Your task to perform on an android device: see creations saved in the google photos Image 0: 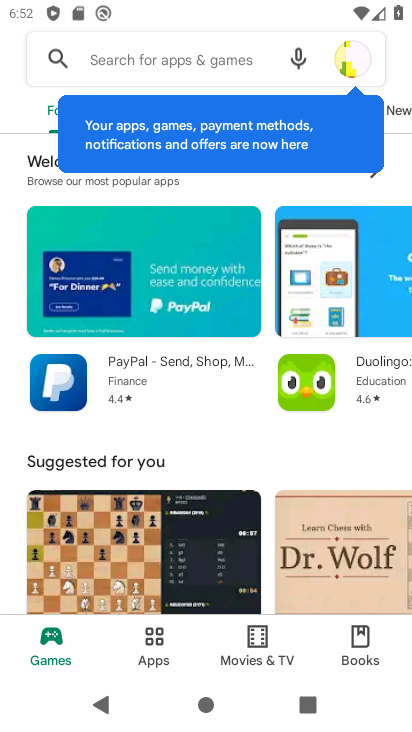
Step 0: press home button
Your task to perform on an android device: see creations saved in the google photos Image 1: 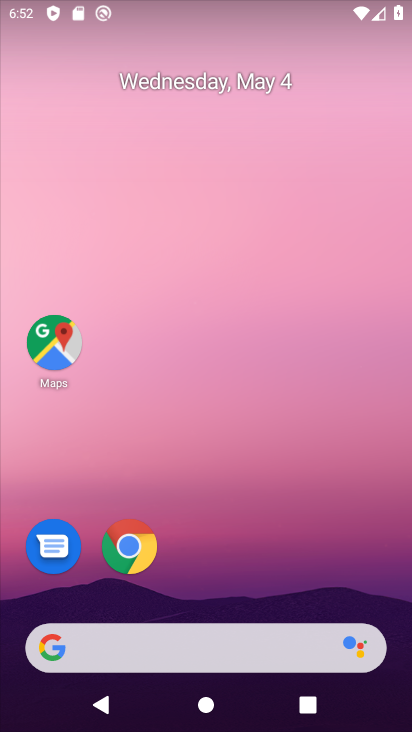
Step 1: drag from (291, 500) to (216, 0)
Your task to perform on an android device: see creations saved in the google photos Image 2: 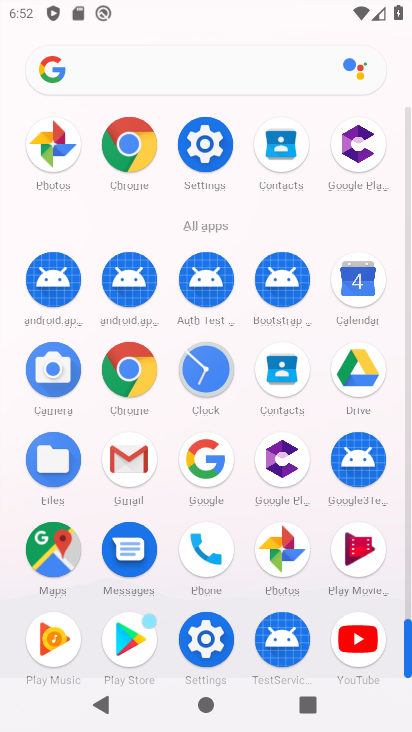
Step 2: click (51, 162)
Your task to perform on an android device: see creations saved in the google photos Image 3: 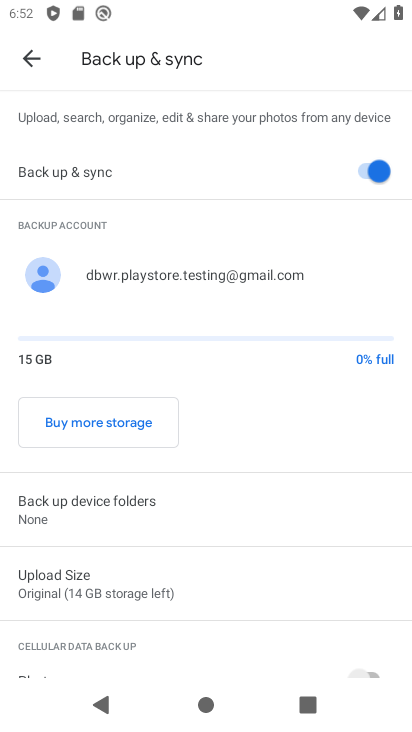
Step 3: drag from (245, 519) to (211, 214)
Your task to perform on an android device: see creations saved in the google photos Image 4: 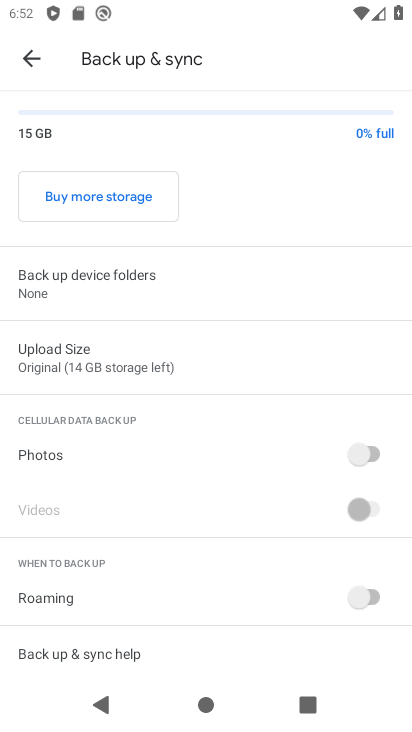
Step 4: click (40, 69)
Your task to perform on an android device: see creations saved in the google photos Image 5: 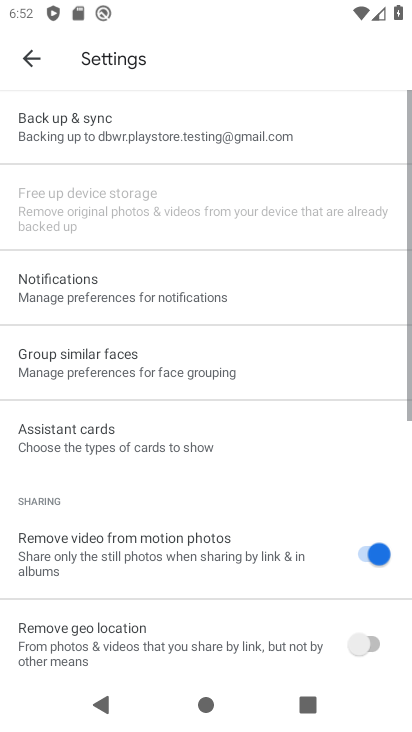
Step 5: click (40, 69)
Your task to perform on an android device: see creations saved in the google photos Image 6: 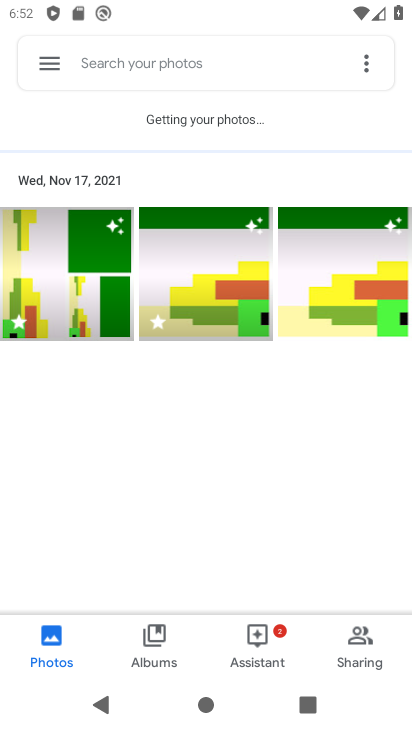
Step 6: click (155, 62)
Your task to perform on an android device: see creations saved in the google photos Image 7: 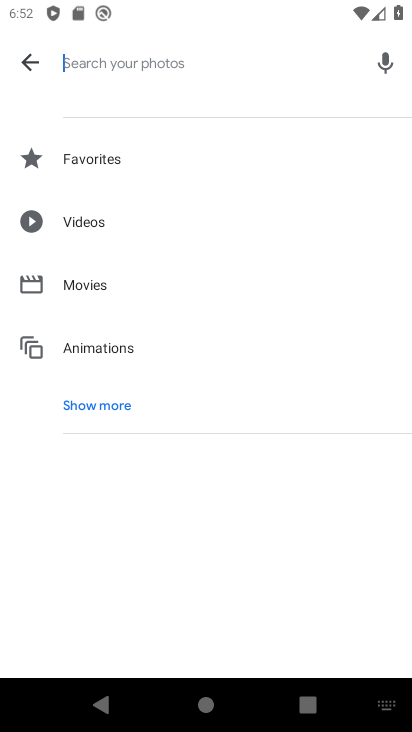
Step 7: click (126, 406)
Your task to perform on an android device: see creations saved in the google photos Image 8: 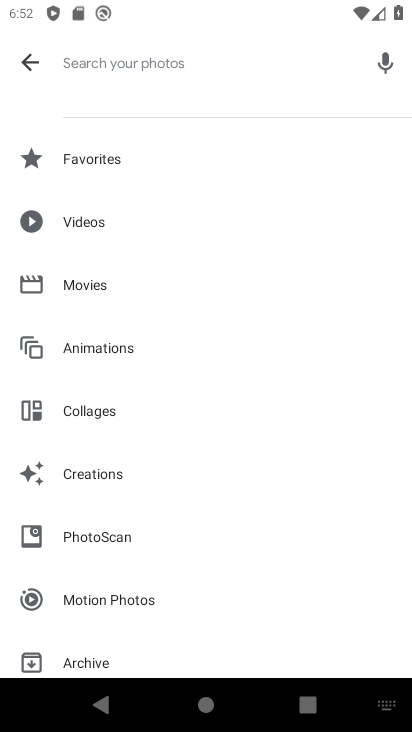
Step 8: click (115, 470)
Your task to perform on an android device: see creations saved in the google photos Image 9: 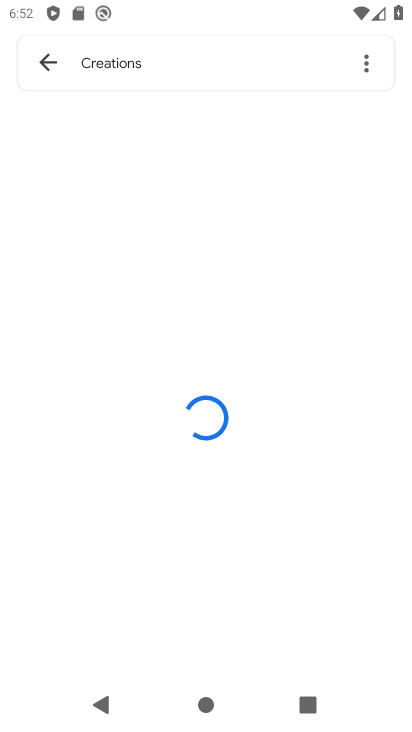
Step 9: task complete